Your task to perform on an android device: Open the calendar and show me this week's events? Image 0: 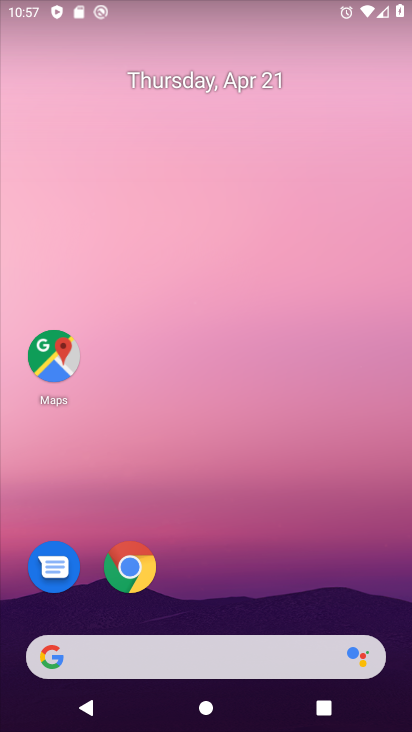
Step 0: drag from (199, 609) to (306, 44)
Your task to perform on an android device: Open the calendar and show me this week's events? Image 1: 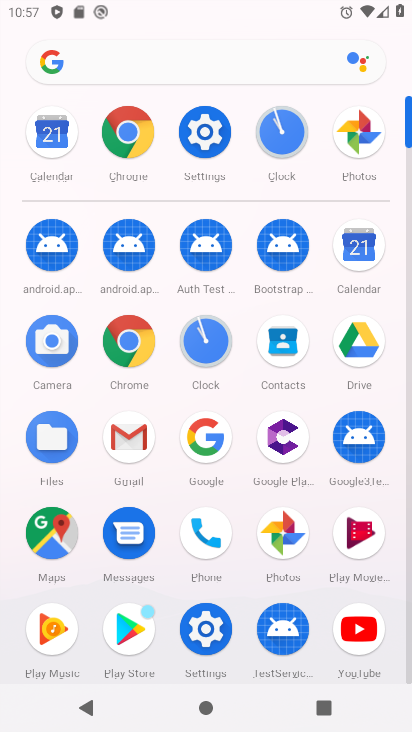
Step 1: click (356, 250)
Your task to perform on an android device: Open the calendar and show me this week's events? Image 2: 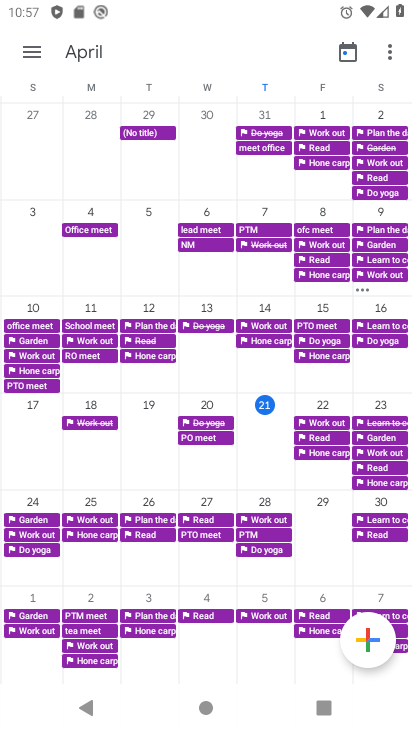
Step 2: click (34, 49)
Your task to perform on an android device: Open the calendar and show me this week's events? Image 3: 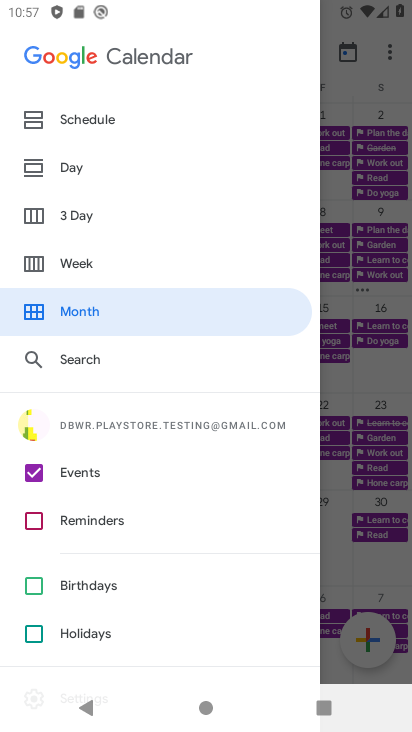
Step 3: click (86, 265)
Your task to perform on an android device: Open the calendar and show me this week's events? Image 4: 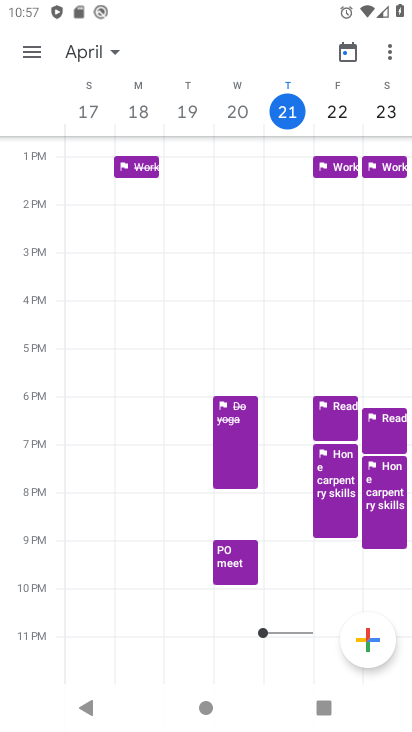
Step 4: task complete